Your task to perform on an android device: find which apps use the phone's location Image 0: 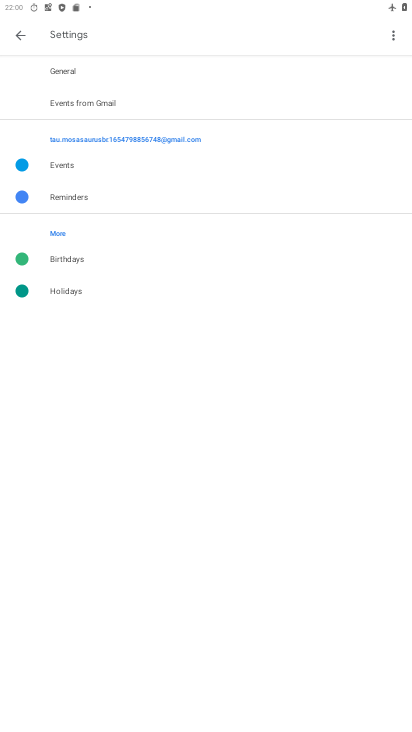
Step 0: press home button
Your task to perform on an android device: find which apps use the phone's location Image 1: 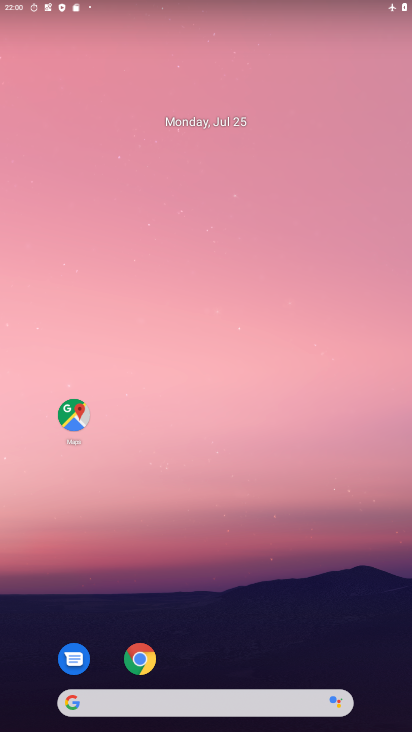
Step 1: drag from (207, 651) to (226, 282)
Your task to perform on an android device: find which apps use the phone's location Image 2: 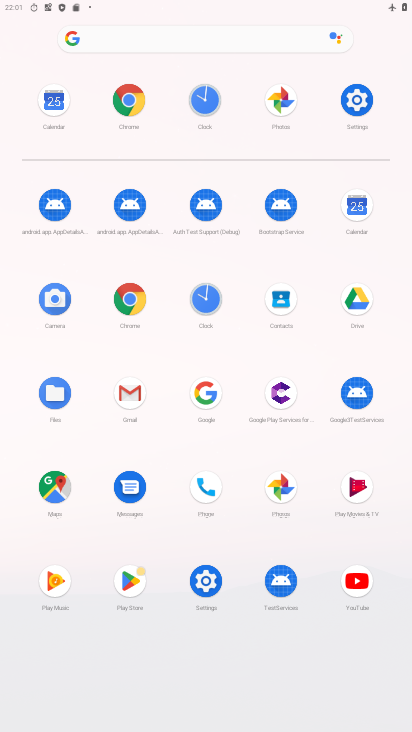
Step 2: click (357, 111)
Your task to perform on an android device: find which apps use the phone's location Image 3: 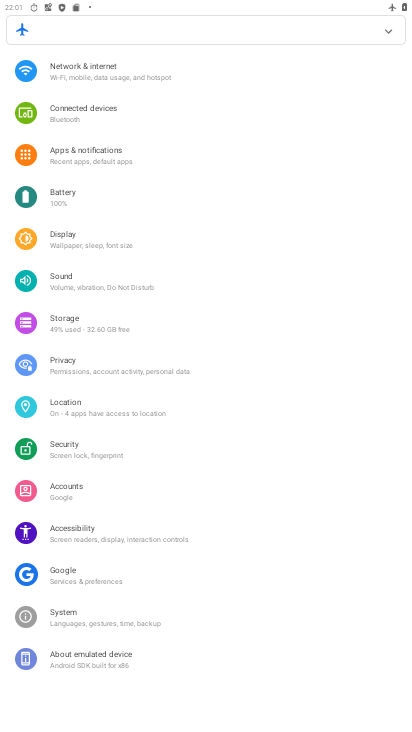
Step 3: click (91, 425)
Your task to perform on an android device: find which apps use the phone's location Image 4: 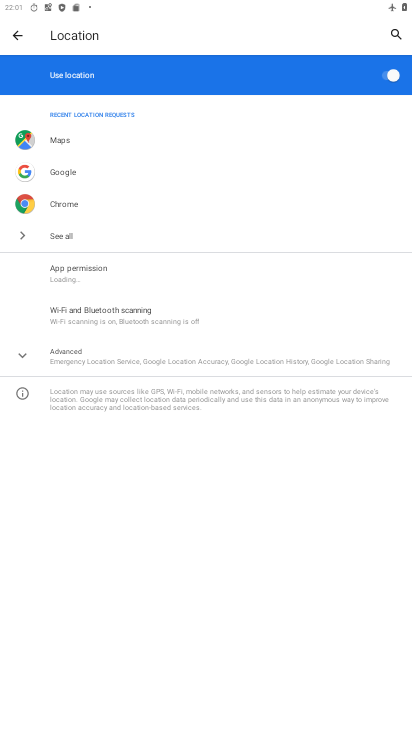
Step 4: click (85, 268)
Your task to perform on an android device: find which apps use the phone's location Image 5: 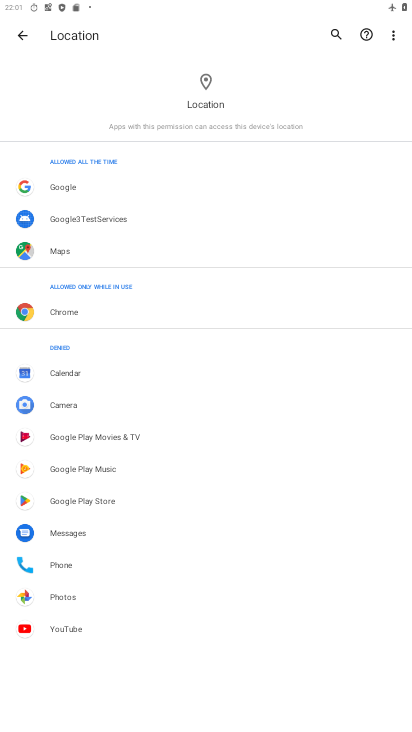
Step 5: task complete